Your task to perform on an android device: Open display settings Image 0: 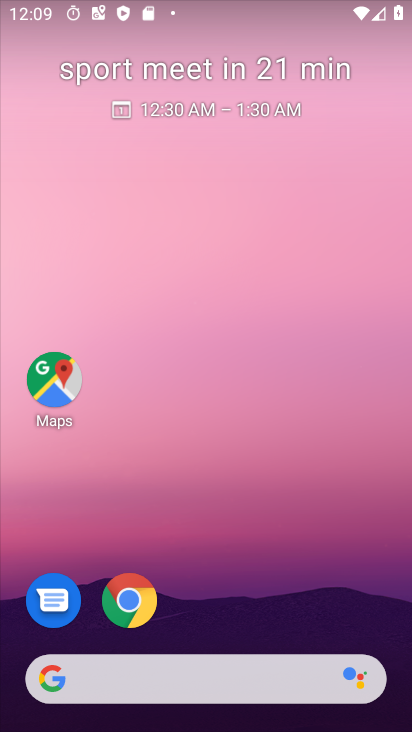
Step 0: drag from (205, 567) to (223, 124)
Your task to perform on an android device: Open display settings Image 1: 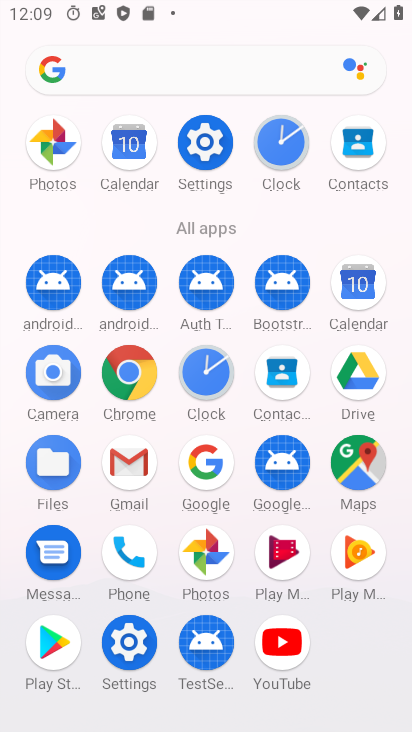
Step 1: click (204, 145)
Your task to perform on an android device: Open display settings Image 2: 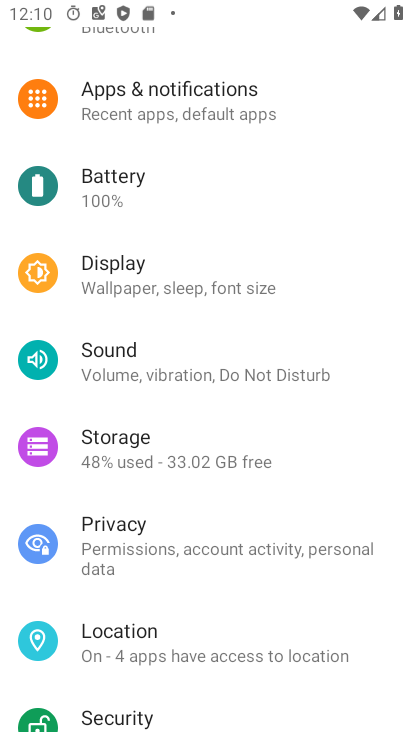
Step 2: click (173, 276)
Your task to perform on an android device: Open display settings Image 3: 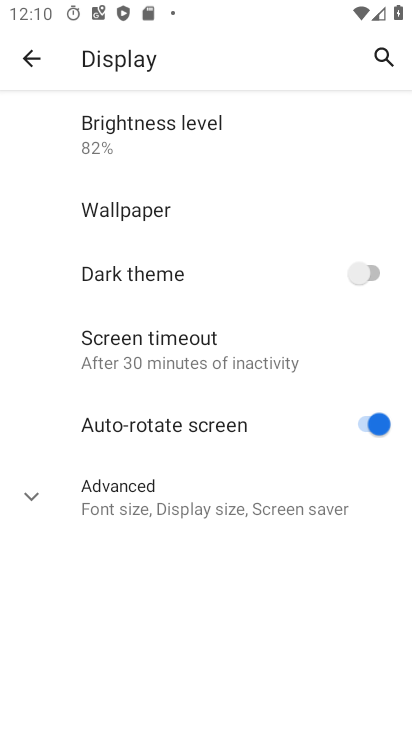
Step 3: task complete